Your task to perform on an android device: turn off wifi Image 0: 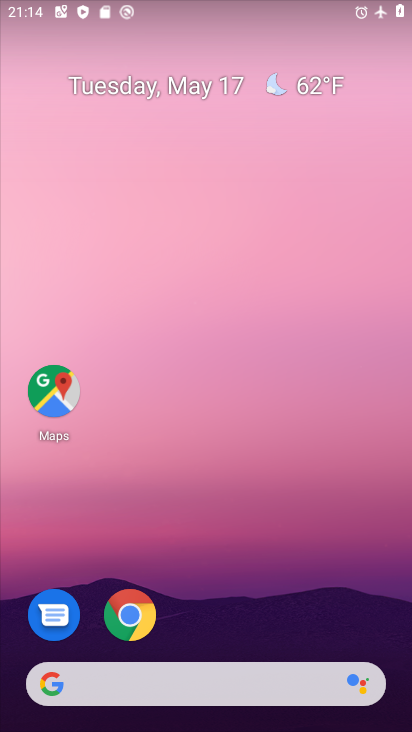
Step 0: drag from (162, 1) to (142, 440)
Your task to perform on an android device: turn off wifi Image 1: 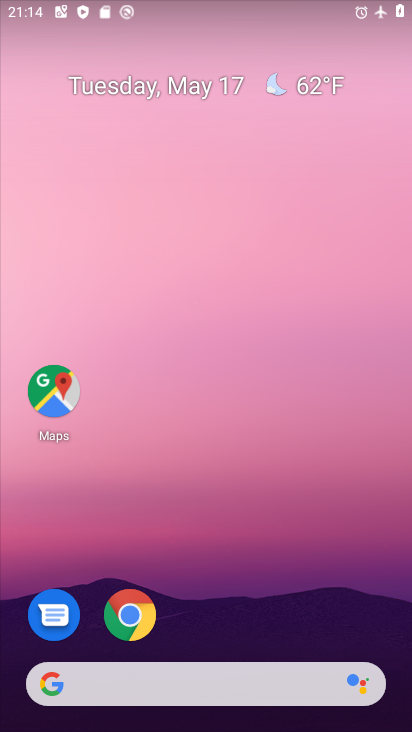
Step 1: task complete